Your task to perform on an android device: turn on bluetooth scan Image 0: 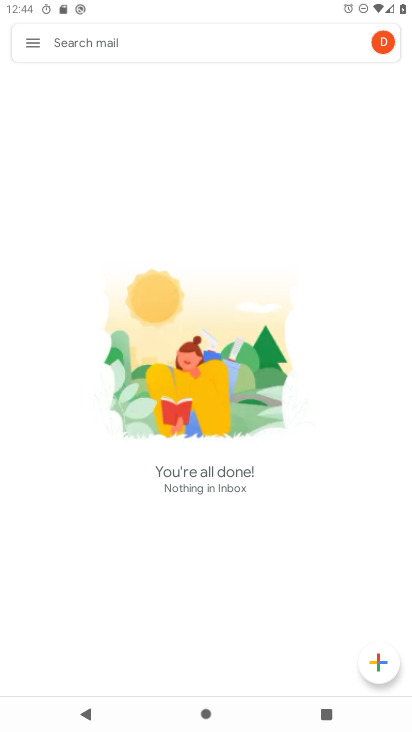
Step 0: press home button
Your task to perform on an android device: turn on bluetooth scan Image 1: 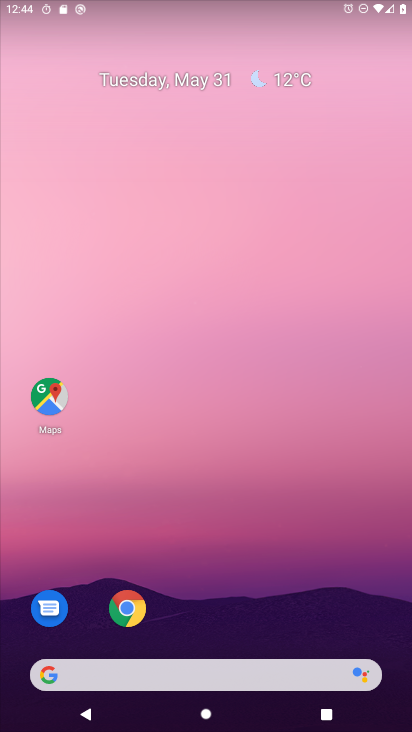
Step 1: drag from (236, 334) to (234, 0)
Your task to perform on an android device: turn on bluetooth scan Image 2: 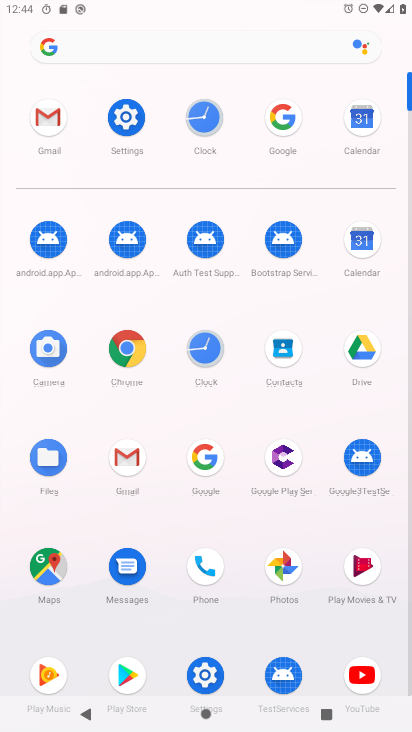
Step 2: click (125, 121)
Your task to perform on an android device: turn on bluetooth scan Image 3: 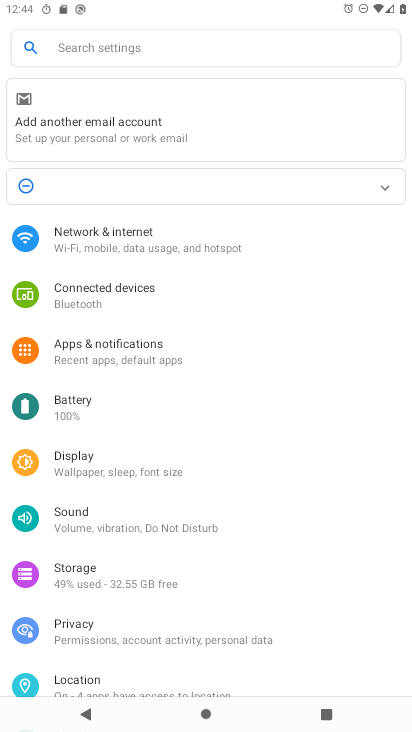
Step 3: click (85, 685)
Your task to perform on an android device: turn on bluetooth scan Image 4: 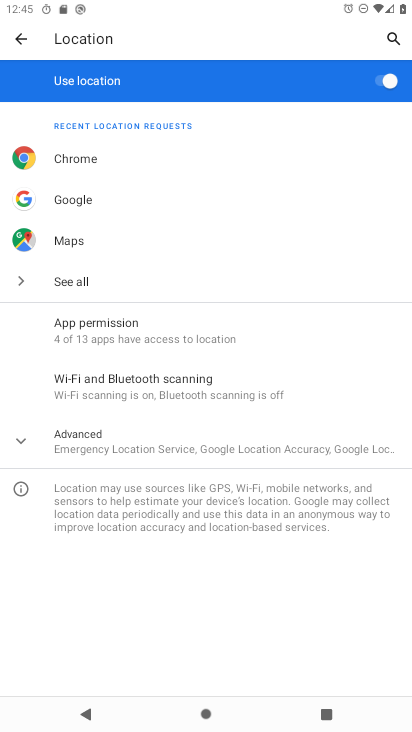
Step 4: click (103, 398)
Your task to perform on an android device: turn on bluetooth scan Image 5: 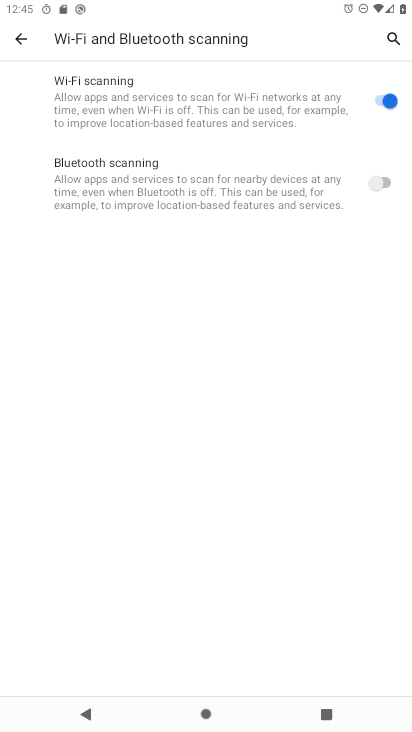
Step 5: click (368, 180)
Your task to perform on an android device: turn on bluetooth scan Image 6: 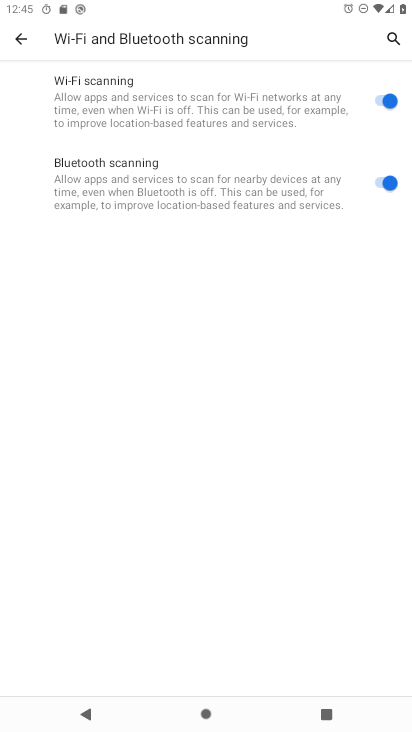
Step 6: task complete